Your task to perform on an android device: Toggle the flashlight Image 0: 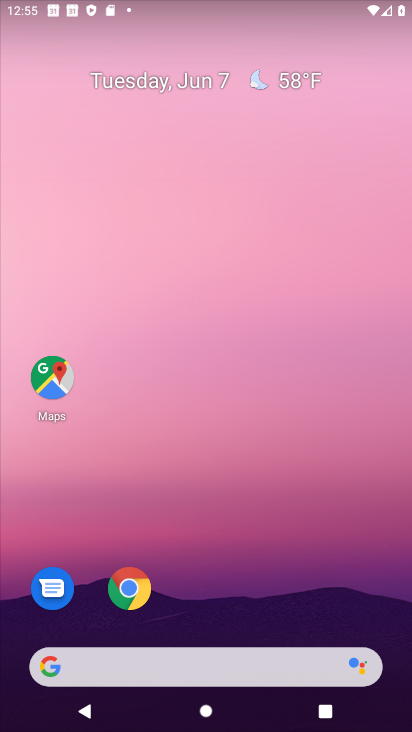
Step 0: drag from (272, 622) to (261, 68)
Your task to perform on an android device: Toggle the flashlight Image 1: 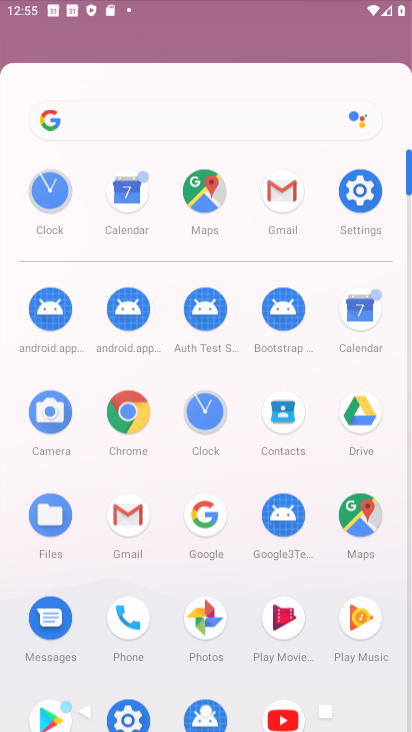
Step 1: click (261, 68)
Your task to perform on an android device: Toggle the flashlight Image 2: 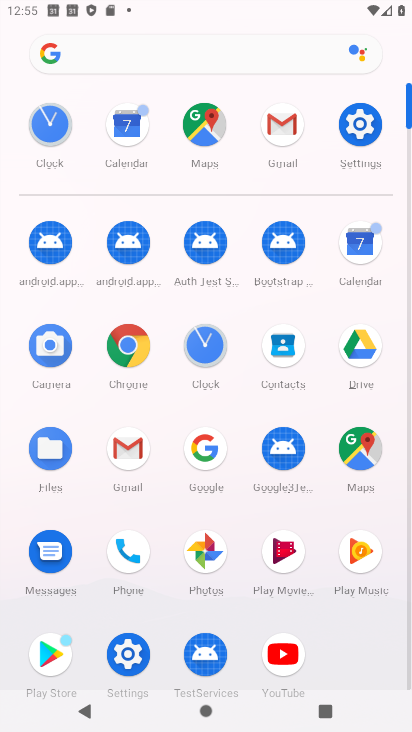
Step 2: task complete